Your task to perform on an android device: Search for Mexican restaurants on Maps Image 0: 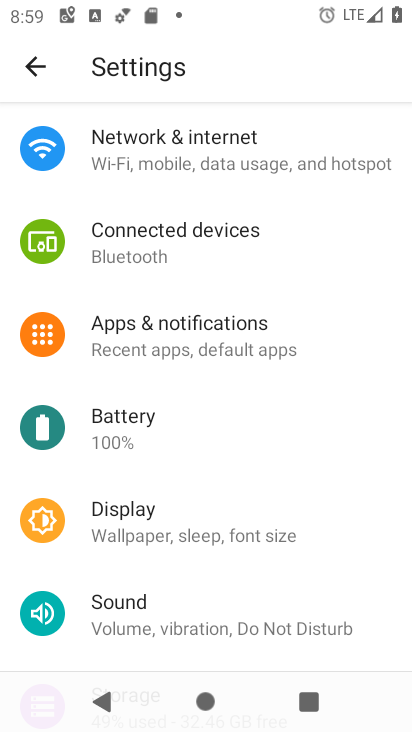
Step 0: press home button
Your task to perform on an android device: Search for Mexican restaurants on Maps Image 1: 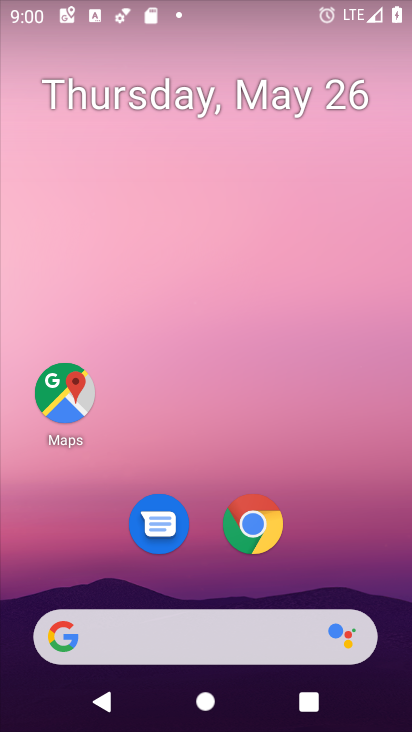
Step 1: click (71, 392)
Your task to perform on an android device: Search for Mexican restaurants on Maps Image 2: 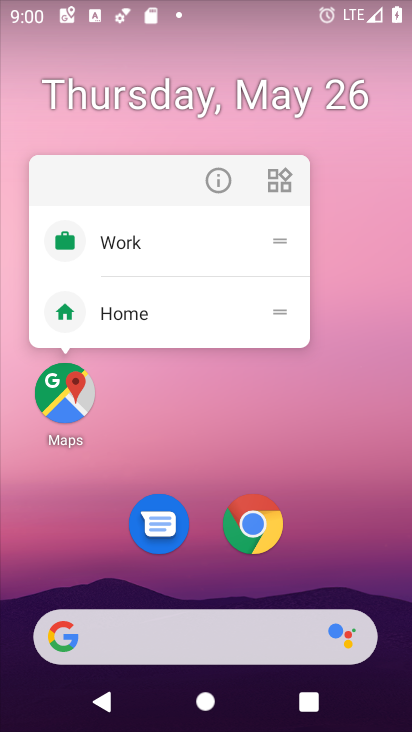
Step 2: click (71, 394)
Your task to perform on an android device: Search for Mexican restaurants on Maps Image 3: 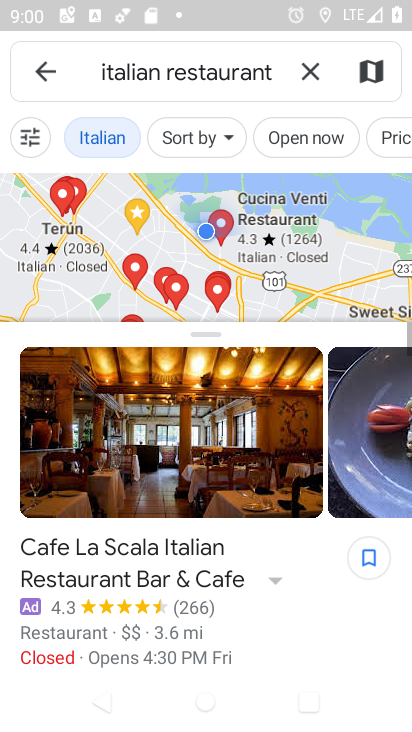
Step 3: click (307, 59)
Your task to perform on an android device: Search for Mexican restaurants on Maps Image 4: 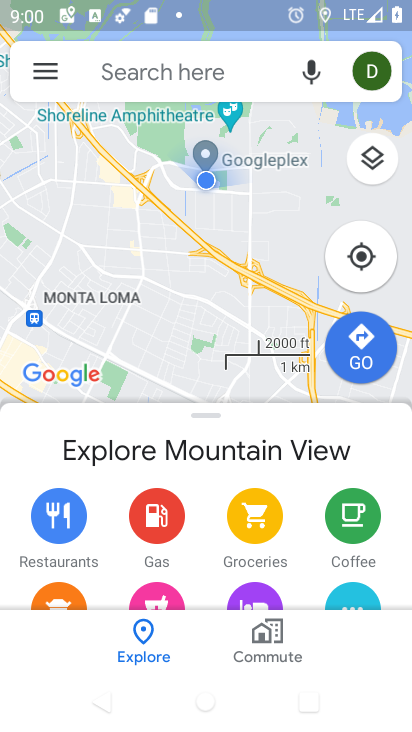
Step 4: click (211, 65)
Your task to perform on an android device: Search for Mexican restaurants on Maps Image 5: 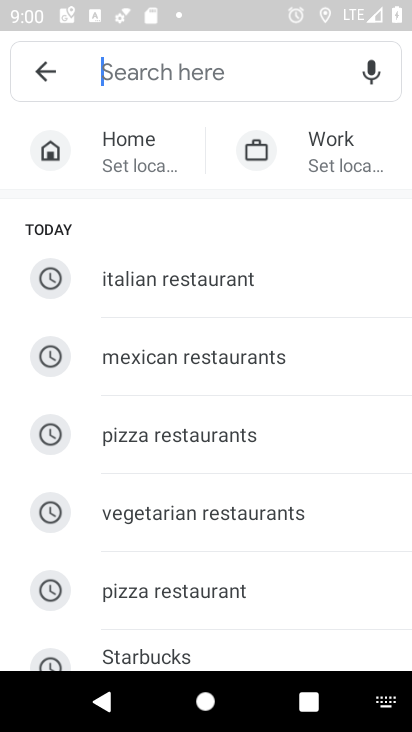
Step 5: click (253, 351)
Your task to perform on an android device: Search for Mexican restaurants on Maps Image 6: 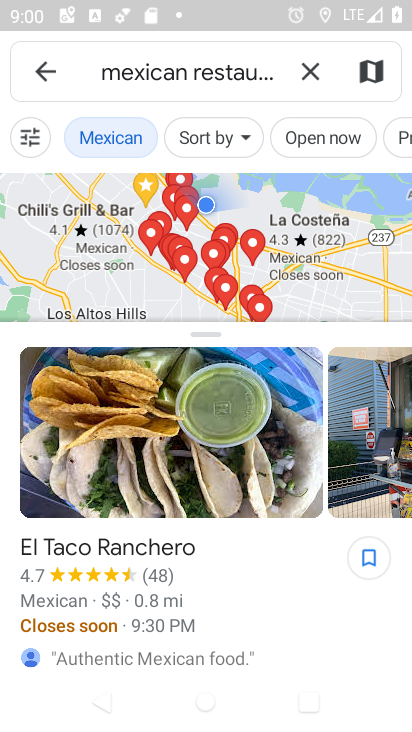
Step 6: task complete